Your task to perform on an android device: Open maps Image 0: 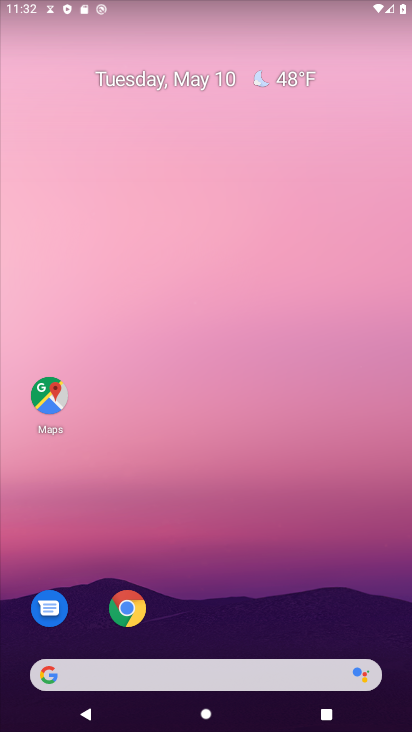
Step 0: click (55, 408)
Your task to perform on an android device: Open maps Image 1: 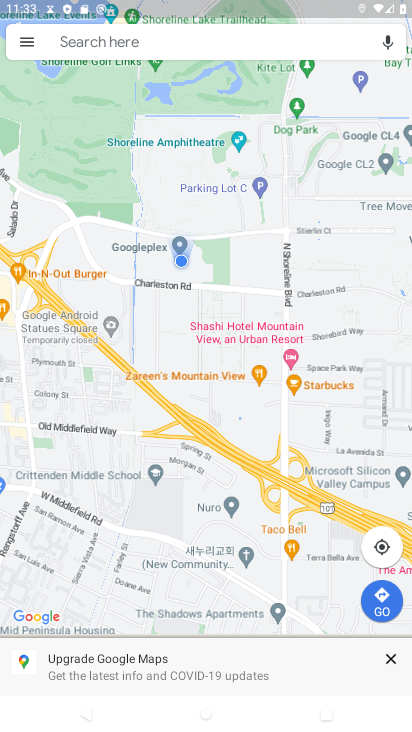
Step 1: task complete